Your task to perform on an android device: Show the shopping cart on amazon. Search for macbook pro 13 inch on amazon, select the first entry, add it to the cart, then select checkout. Image 0: 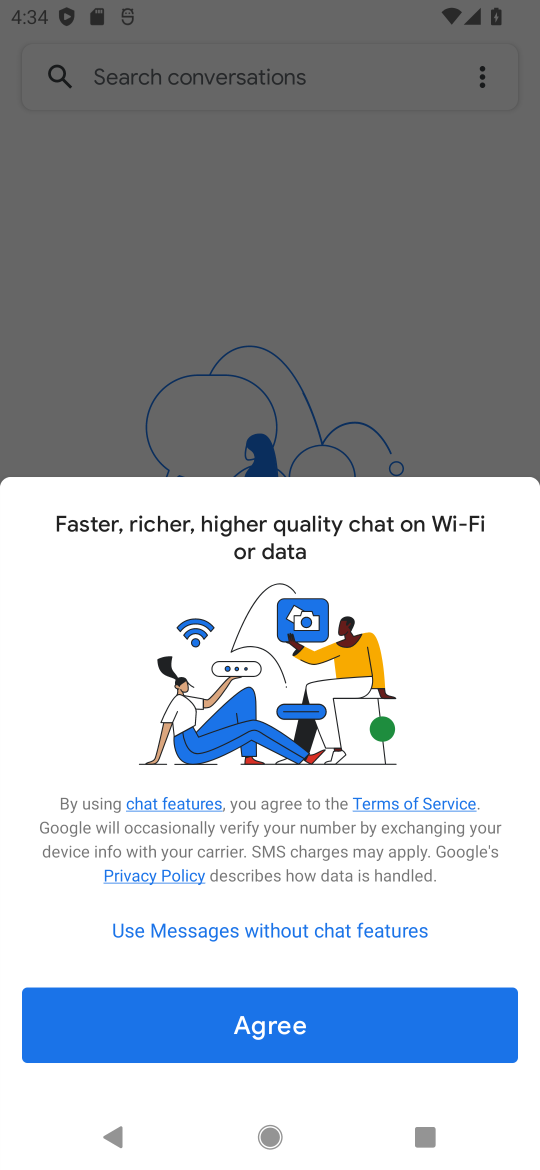
Step 0: press home button
Your task to perform on an android device: Show the shopping cart on amazon. Search for macbook pro 13 inch on amazon, select the first entry, add it to the cart, then select checkout. Image 1: 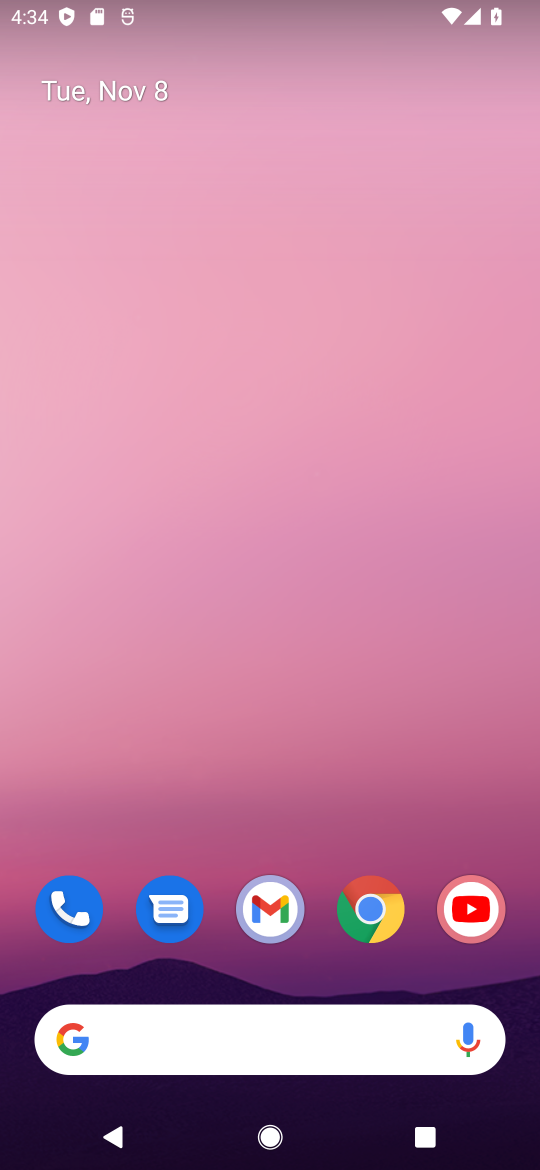
Step 1: click (369, 915)
Your task to perform on an android device: Show the shopping cart on amazon. Search for macbook pro 13 inch on amazon, select the first entry, add it to the cart, then select checkout. Image 2: 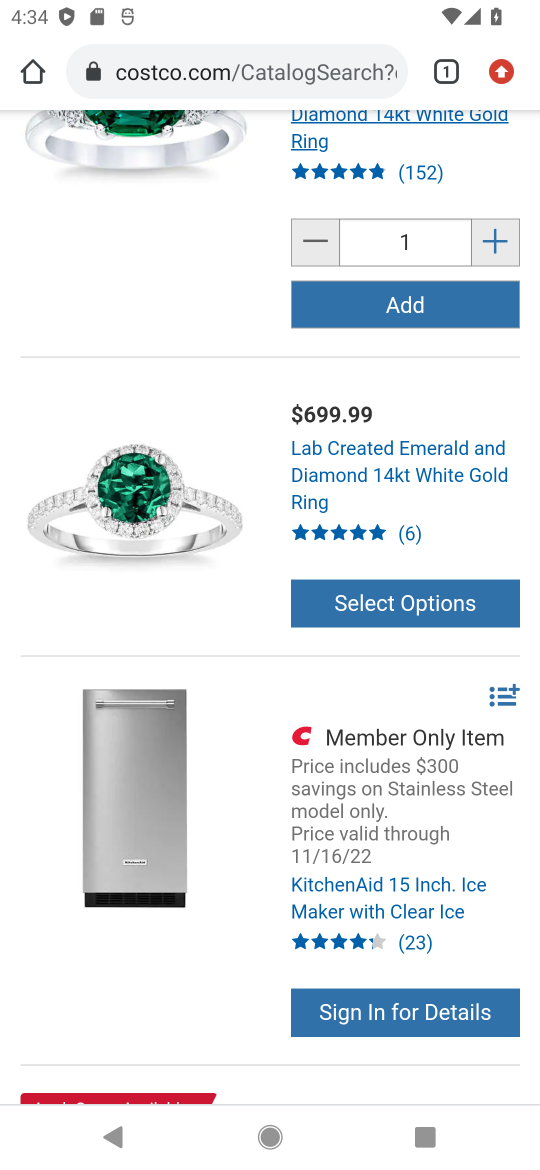
Step 2: click (250, 65)
Your task to perform on an android device: Show the shopping cart on amazon. Search for macbook pro 13 inch on amazon, select the first entry, add it to the cart, then select checkout. Image 3: 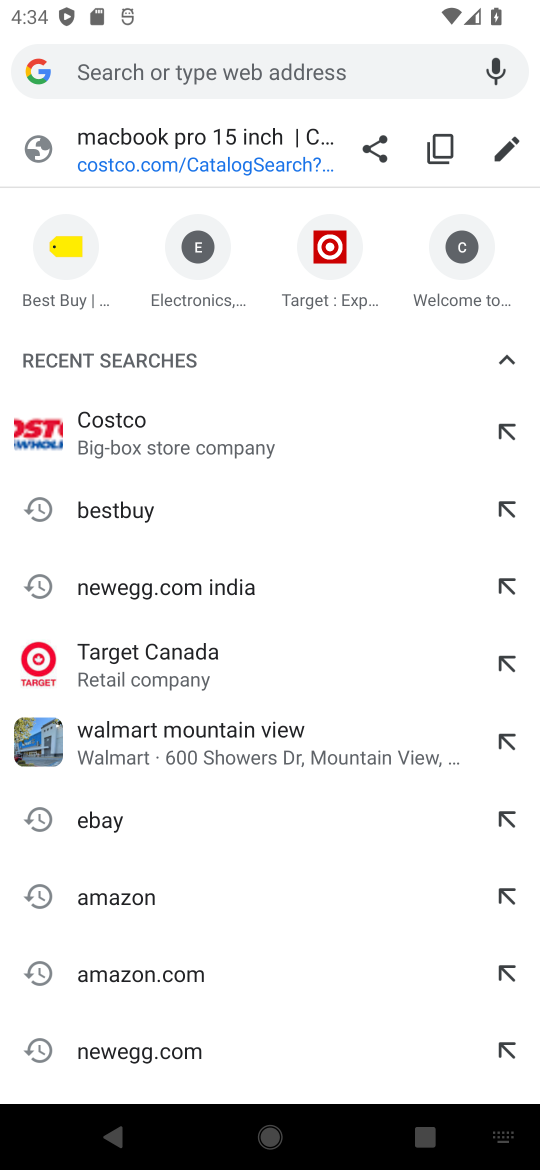
Step 3: click (113, 967)
Your task to perform on an android device: Show the shopping cart on amazon. Search for macbook pro 13 inch on amazon, select the first entry, add it to the cart, then select checkout. Image 4: 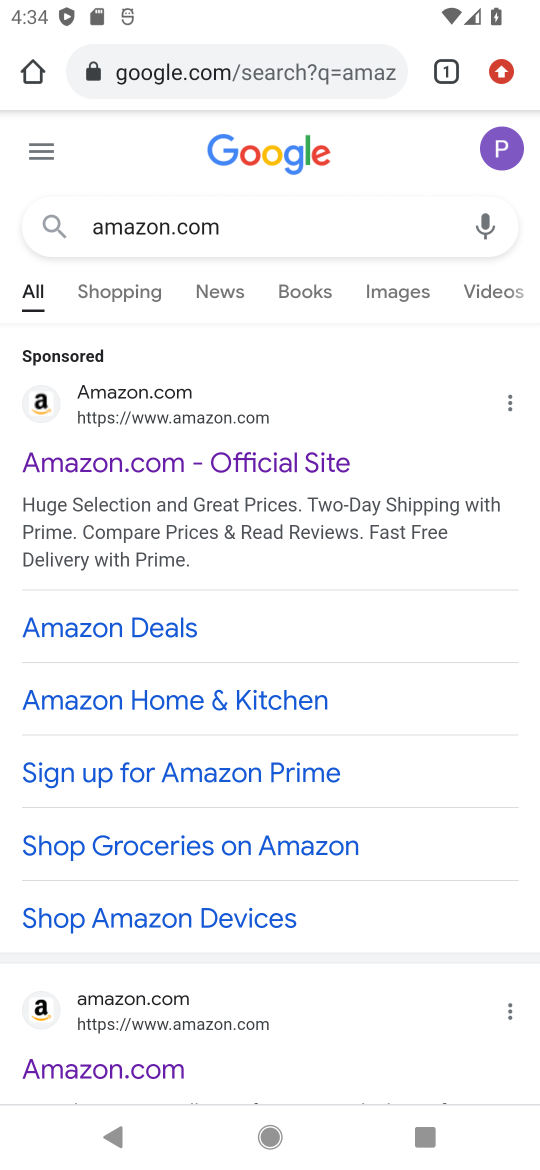
Step 4: click (134, 467)
Your task to perform on an android device: Show the shopping cart on amazon. Search for macbook pro 13 inch on amazon, select the first entry, add it to the cart, then select checkout. Image 5: 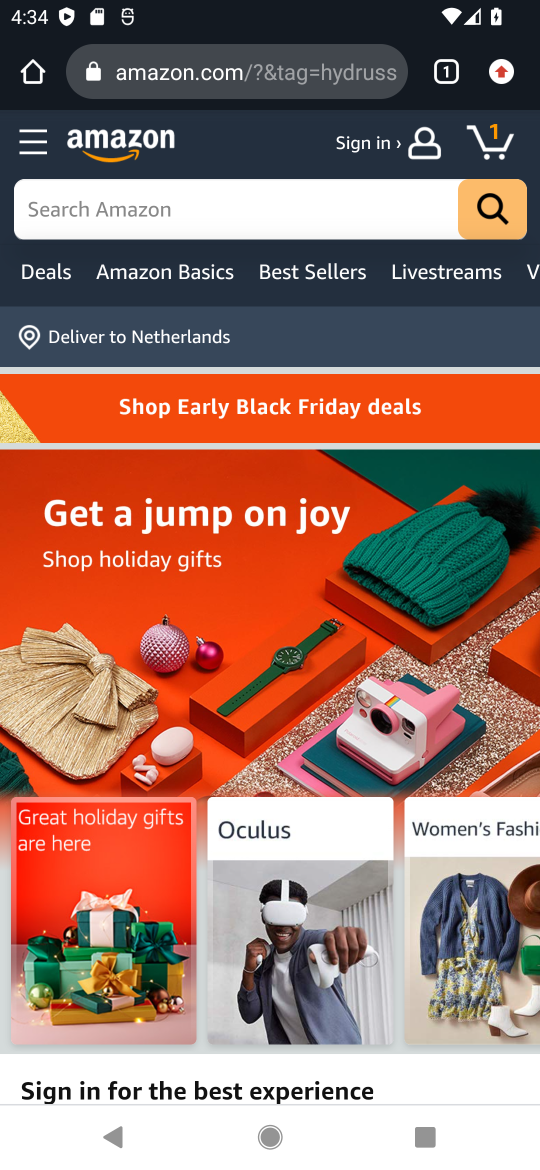
Step 5: click (154, 199)
Your task to perform on an android device: Show the shopping cart on amazon. Search for macbook pro 13 inch on amazon, select the first entry, add it to the cart, then select checkout. Image 6: 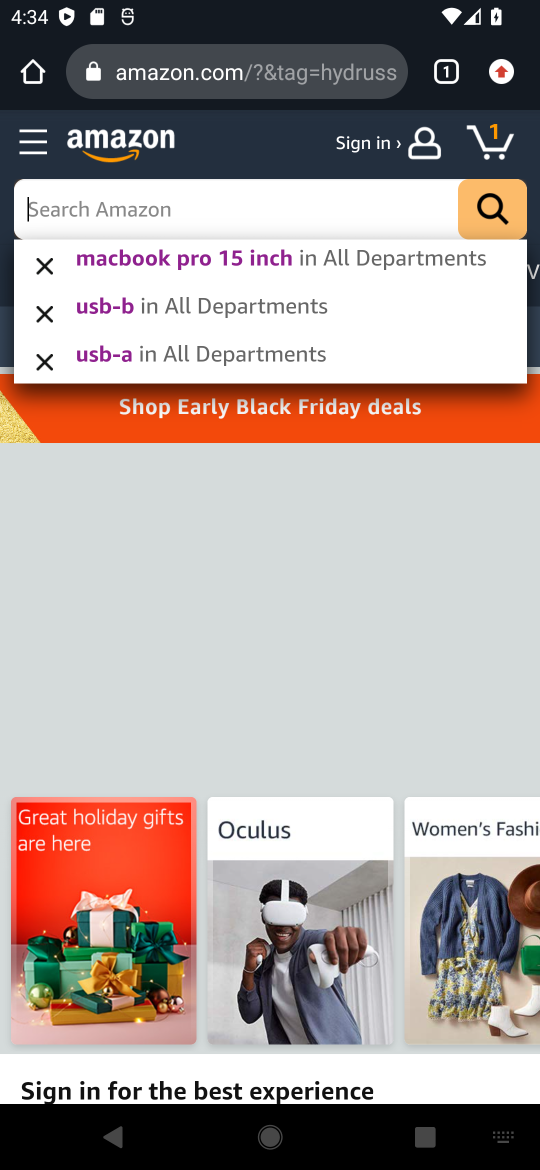
Step 6: type "macbook pro 13 inch"
Your task to perform on an android device: Show the shopping cart on amazon. Search for macbook pro 13 inch on amazon, select the first entry, add it to the cart, then select checkout. Image 7: 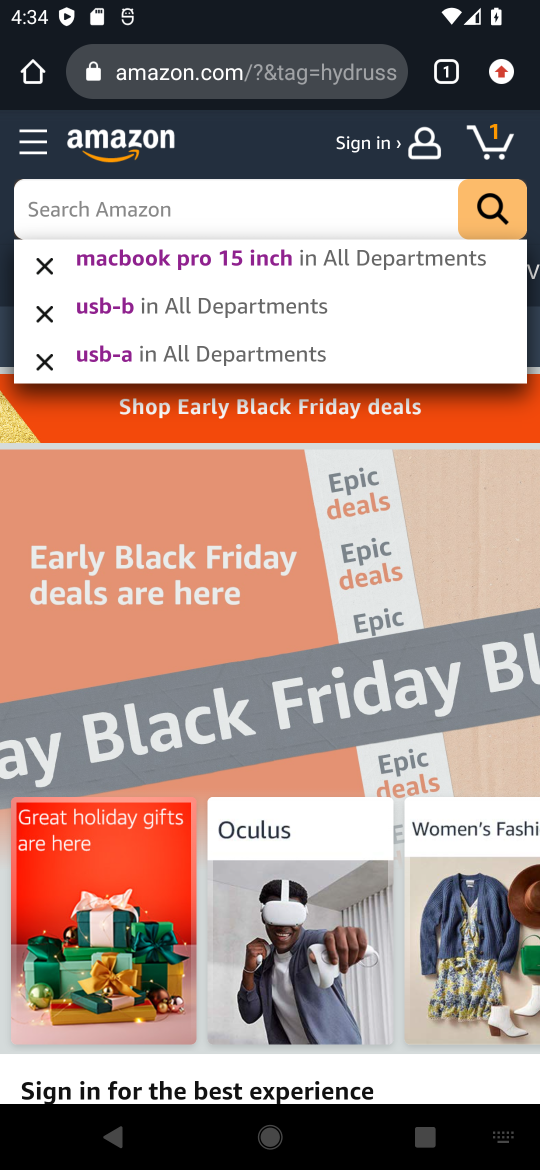
Step 7: press enter
Your task to perform on an android device: Show the shopping cart on amazon. Search for macbook pro 13 inch on amazon, select the first entry, add it to the cart, then select checkout. Image 8: 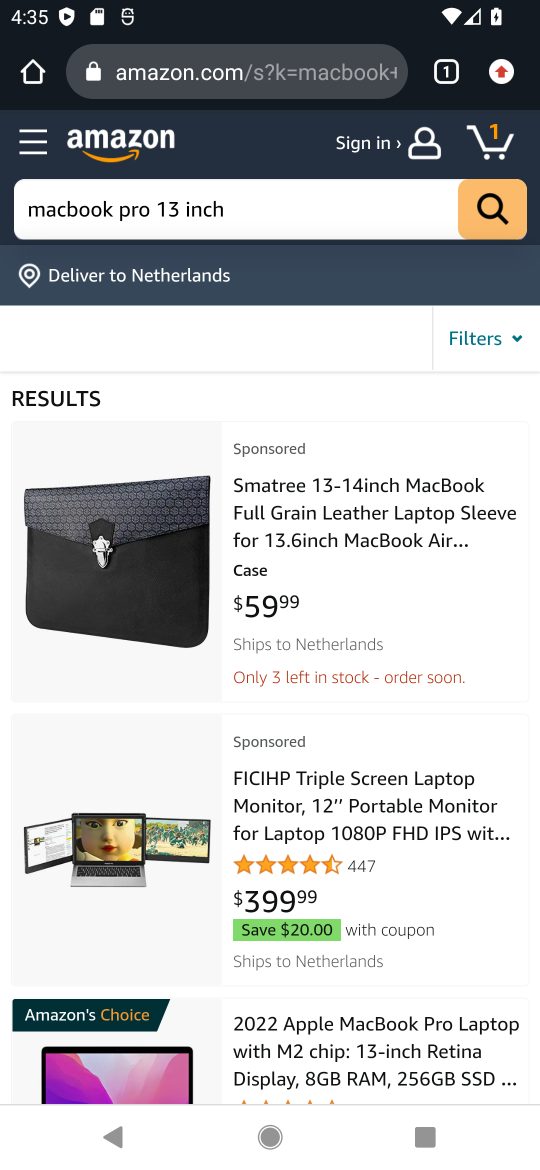
Step 8: click (420, 521)
Your task to perform on an android device: Show the shopping cart on amazon. Search for macbook pro 13 inch on amazon, select the first entry, add it to the cart, then select checkout. Image 9: 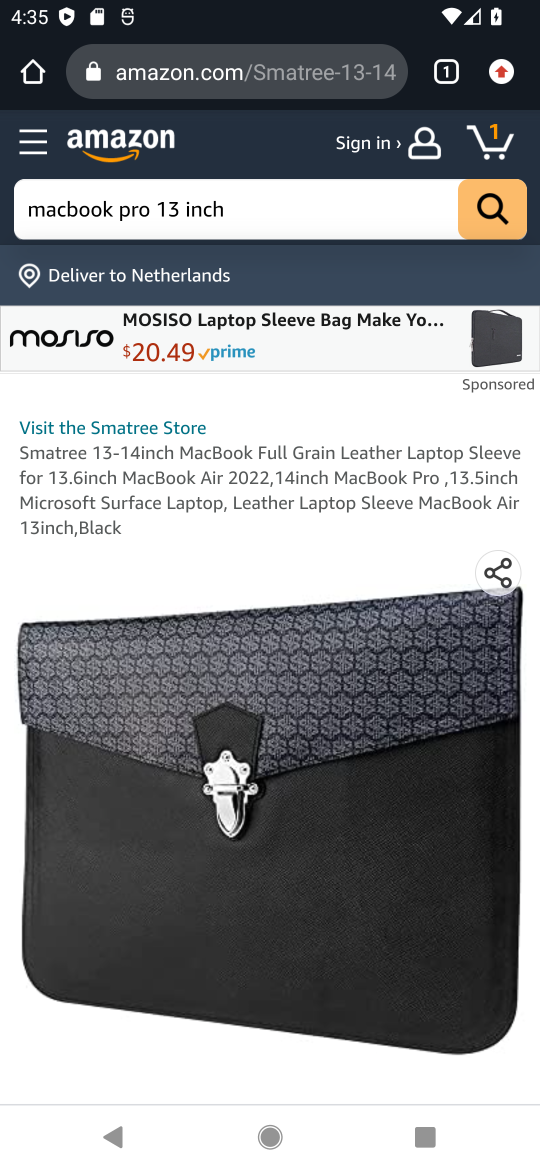
Step 9: drag from (125, 1003) to (421, 85)
Your task to perform on an android device: Show the shopping cart on amazon. Search for macbook pro 13 inch on amazon, select the first entry, add it to the cart, then select checkout. Image 10: 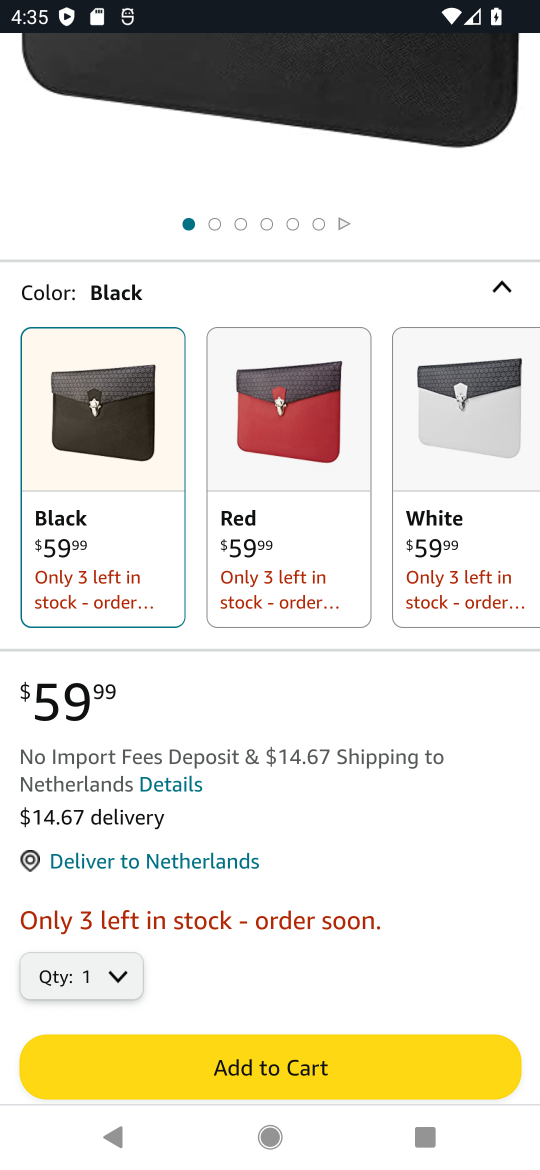
Step 10: drag from (241, 960) to (366, 498)
Your task to perform on an android device: Show the shopping cart on amazon. Search for macbook pro 13 inch on amazon, select the first entry, add it to the cart, then select checkout. Image 11: 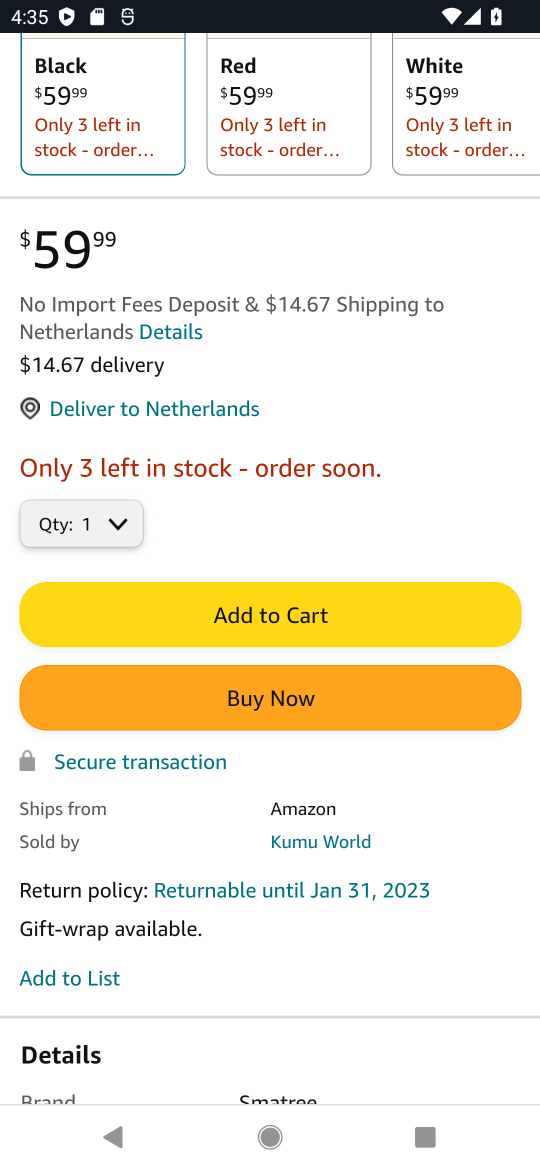
Step 11: click (264, 616)
Your task to perform on an android device: Show the shopping cart on amazon. Search for macbook pro 13 inch on amazon, select the first entry, add it to the cart, then select checkout. Image 12: 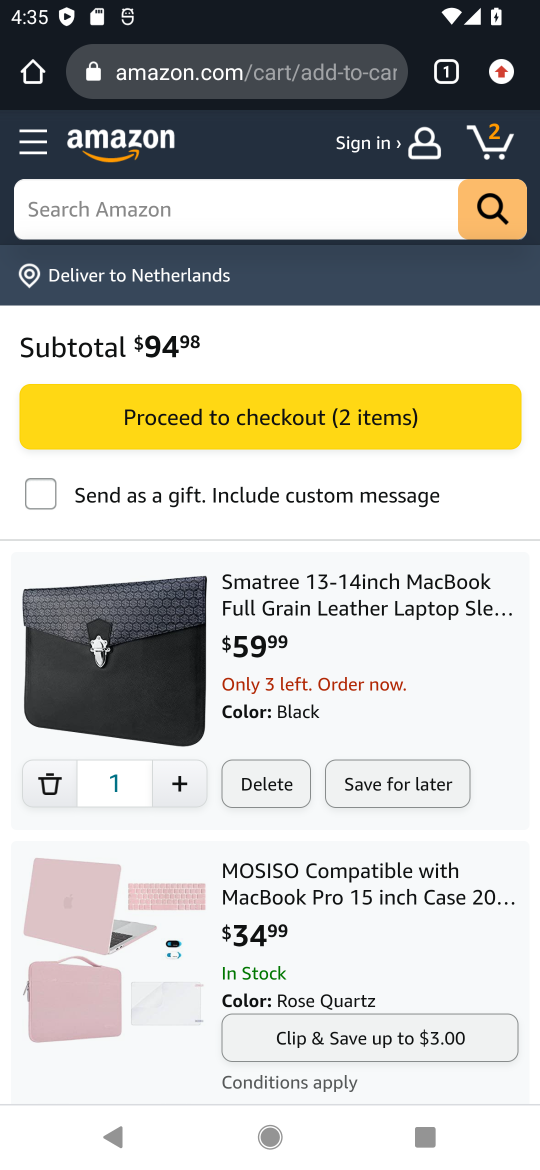
Step 12: drag from (188, 1055) to (258, 721)
Your task to perform on an android device: Show the shopping cart on amazon. Search for macbook pro 13 inch on amazon, select the first entry, add it to the cart, then select checkout. Image 13: 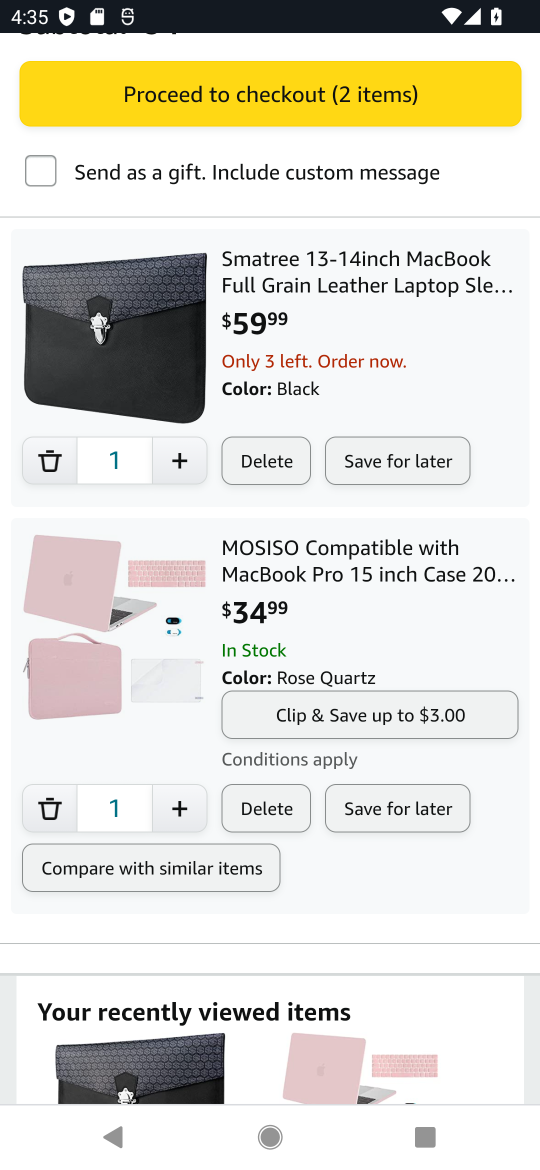
Step 13: click (271, 806)
Your task to perform on an android device: Show the shopping cart on amazon. Search for macbook pro 13 inch on amazon, select the first entry, add it to the cart, then select checkout. Image 14: 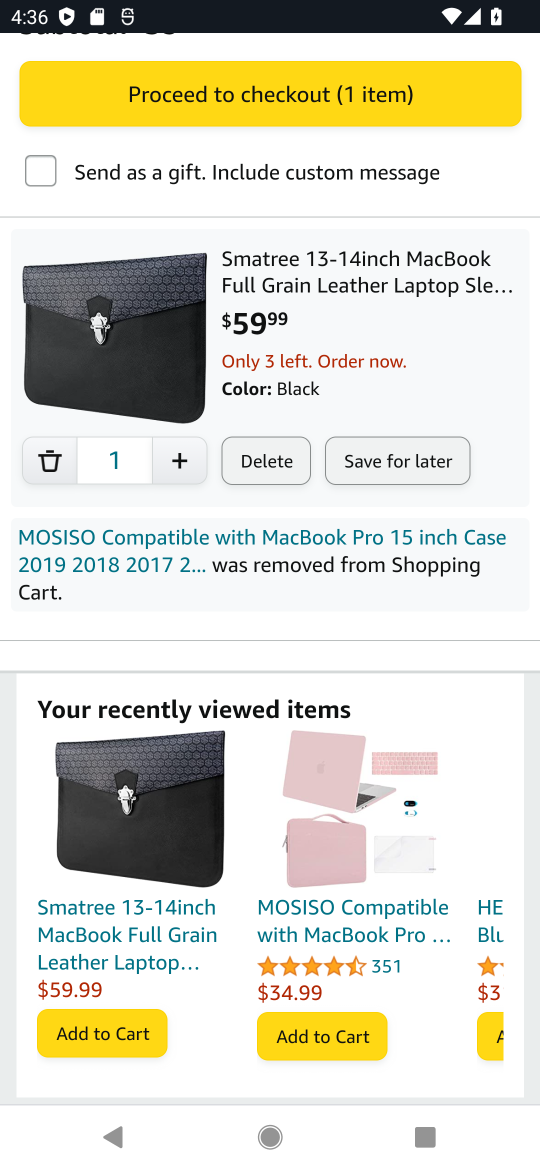
Step 14: task complete